Your task to perform on an android device: Open the web browser Image 0: 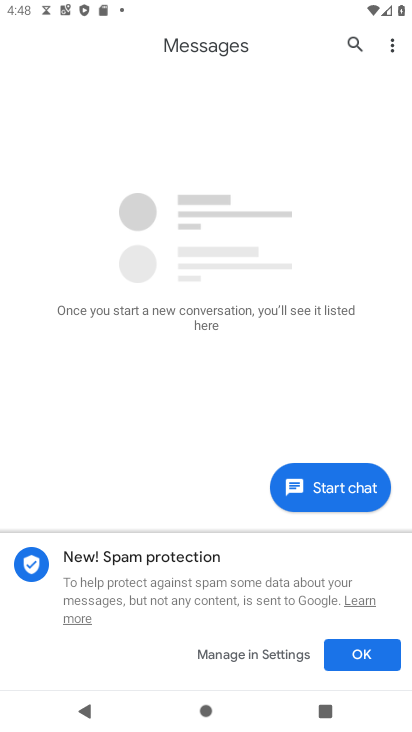
Step 0: press home button
Your task to perform on an android device: Open the web browser Image 1: 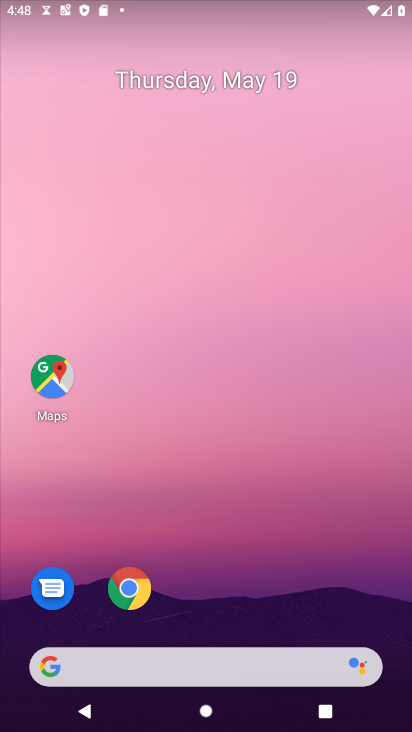
Step 1: click (135, 593)
Your task to perform on an android device: Open the web browser Image 2: 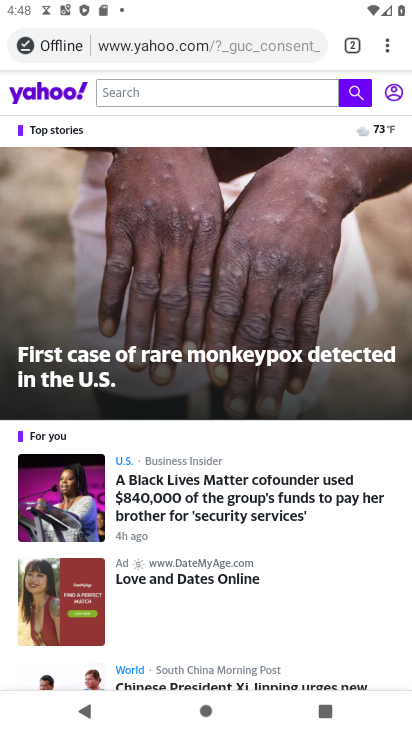
Step 2: task complete